Your task to perform on an android device: Open calendar and show me the fourth week of next month Image 0: 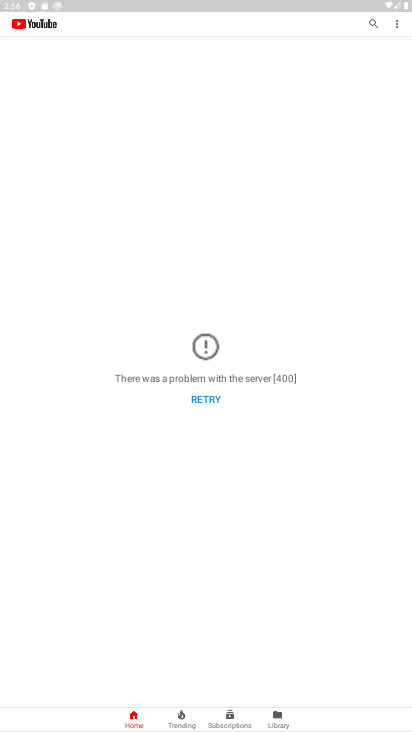
Step 0: press back button
Your task to perform on an android device: Open calendar and show me the fourth week of next month Image 1: 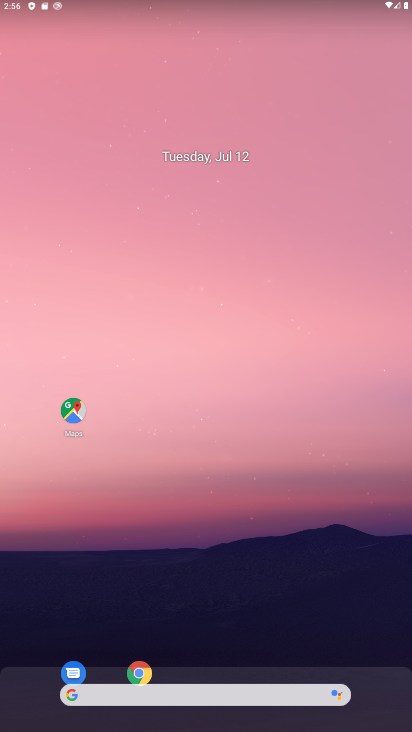
Step 1: drag from (192, 478) to (250, 39)
Your task to perform on an android device: Open calendar and show me the fourth week of next month Image 2: 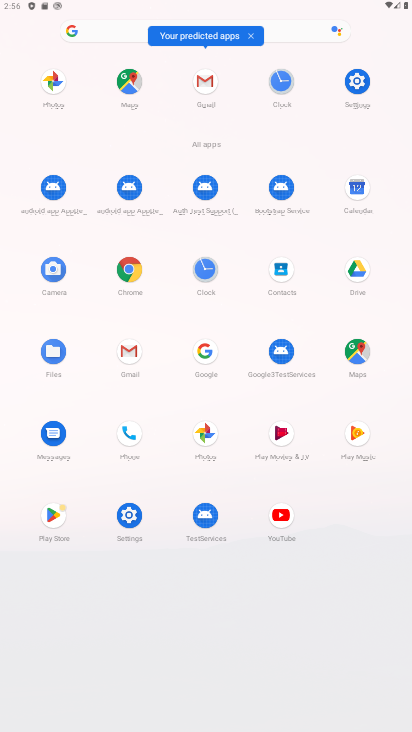
Step 2: click (358, 85)
Your task to perform on an android device: Open calendar and show me the fourth week of next month Image 3: 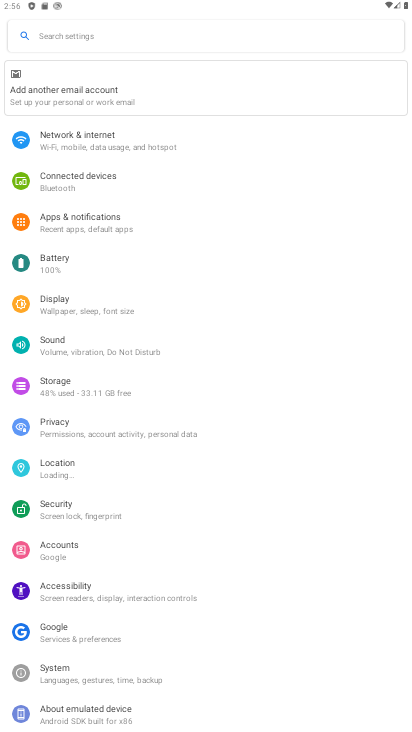
Step 3: click (52, 297)
Your task to perform on an android device: Open calendar and show me the fourth week of next month Image 4: 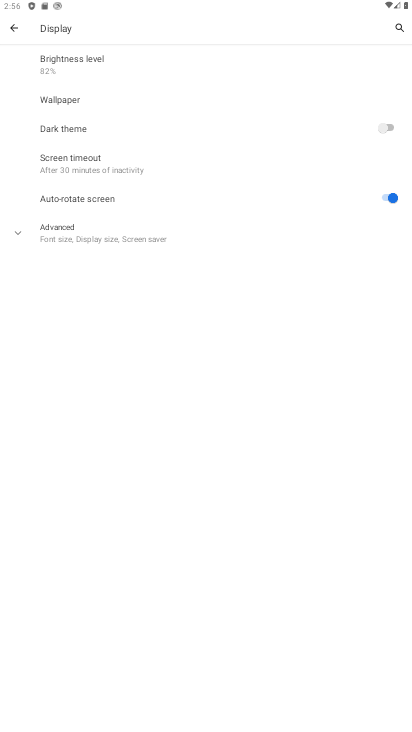
Step 4: click (78, 231)
Your task to perform on an android device: Open calendar and show me the fourth week of next month Image 5: 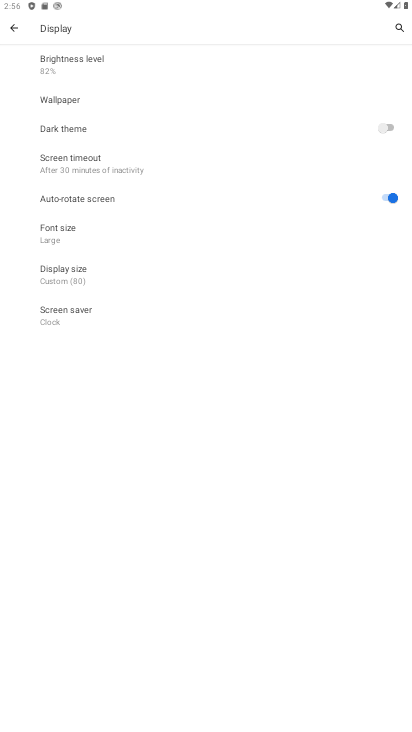
Step 5: click (71, 233)
Your task to perform on an android device: Open calendar and show me the fourth week of next month Image 6: 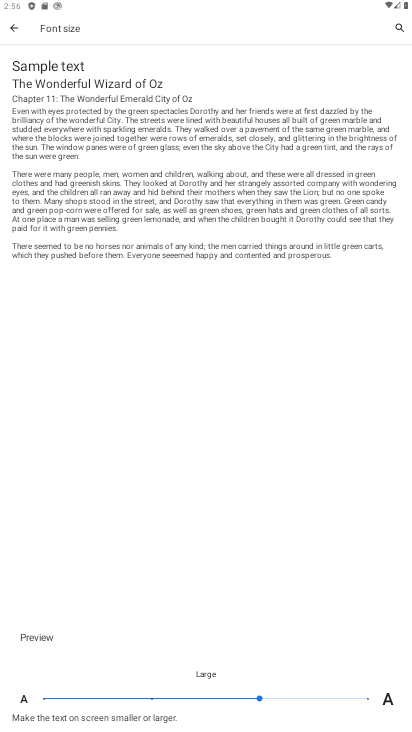
Step 6: click (12, 28)
Your task to perform on an android device: Open calendar and show me the fourth week of next month Image 7: 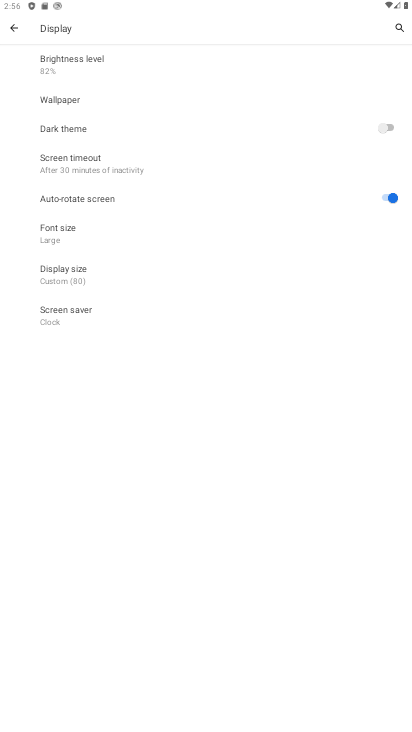
Step 7: click (70, 268)
Your task to perform on an android device: Open calendar and show me the fourth week of next month Image 8: 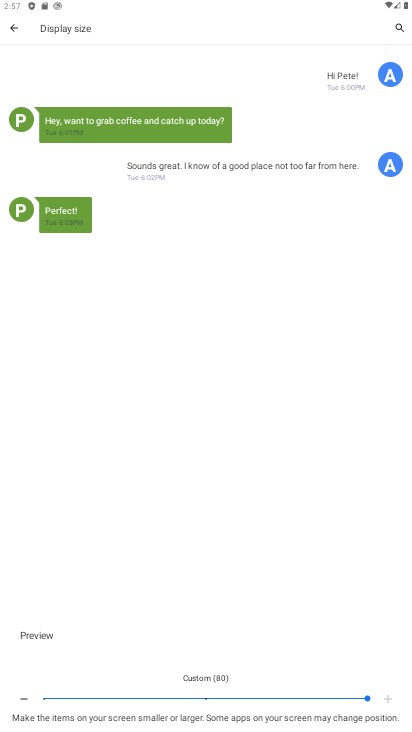
Step 8: click (201, 691)
Your task to perform on an android device: Open calendar and show me the fourth week of next month Image 9: 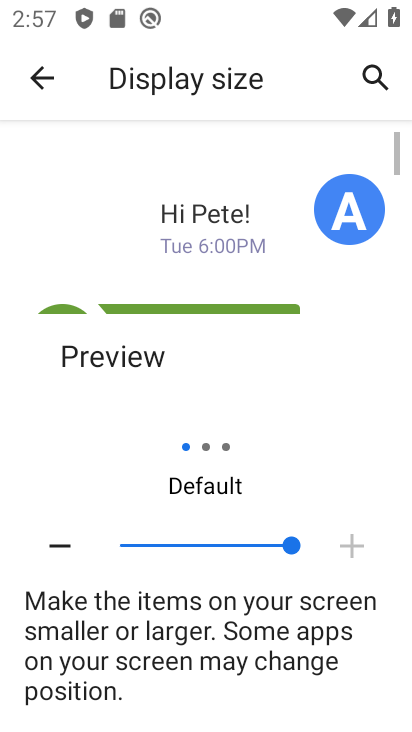
Step 9: click (206, 702)
Your task to perform on an android device: Open calendar and show me the fourth week of next month Image 10: 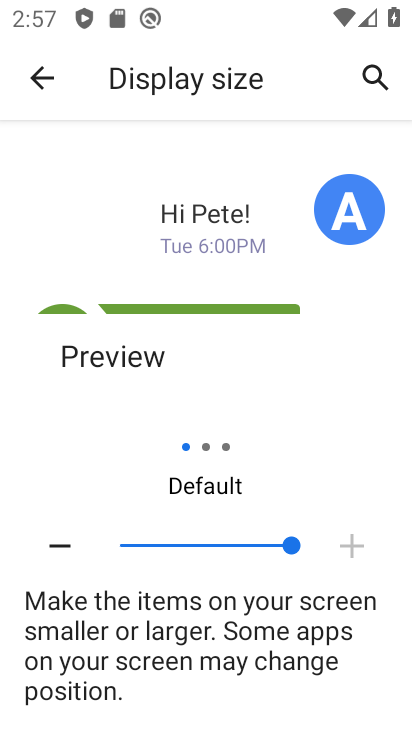
Step 10: click (30, 69)
Your task to perform on an android device: Open calendar and show me the fourth week of next month Image 11: 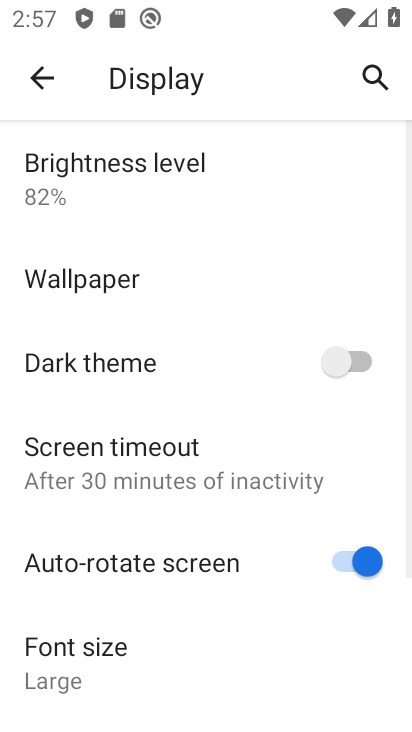
Step 11: click (30, 69)
Your task to perform on an android device: Open calendar and show me the fourth week of next month Image 12: 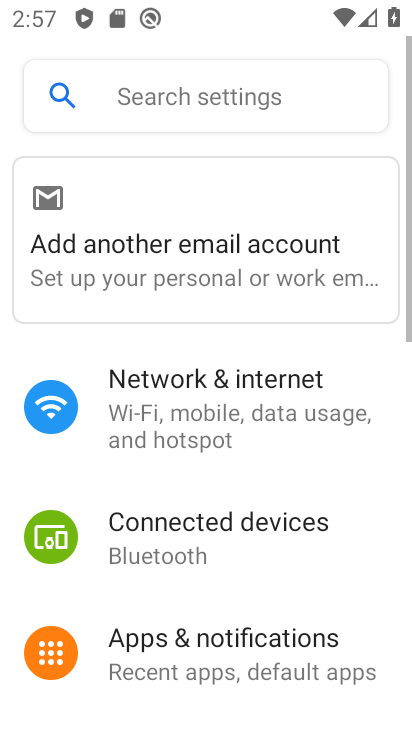
Step 12: press back button
Your task to perform on an android device: Open calendar and show me the fourth week of next month Image 13: 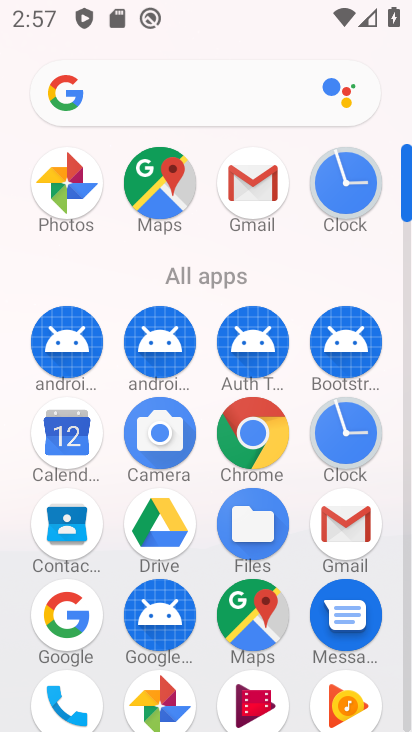
Step 13: click (71, 439)
Your task to perform on an android device: Open calendar and show me the fourth week of next month Image 14: 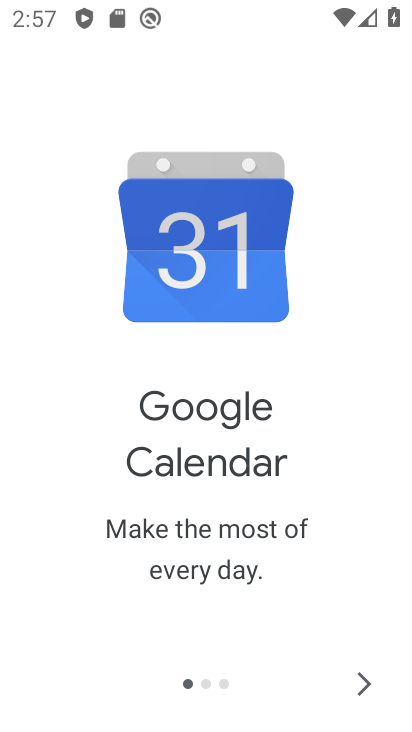
Step 14: click (374, 681)
Your task to perform on an android device: Open calendar and show me the fourth week of next month Image 15: 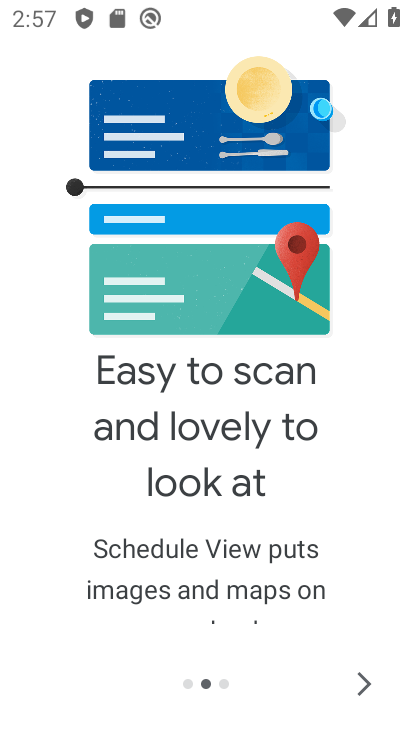
Step 15: click (374, 679)
Your task to perform on an android device: Open calendar and show me the fourth week of next month Image 16: 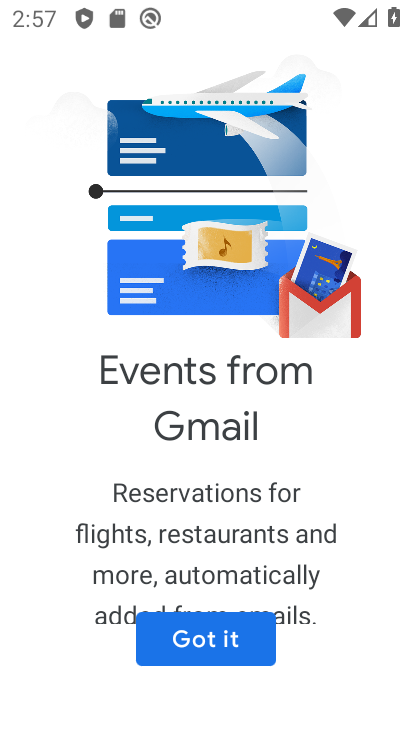
Step 16: click (370, 679)
Your task to perform on an android device: Open calendar and show me the fourth week of next month Image 17: 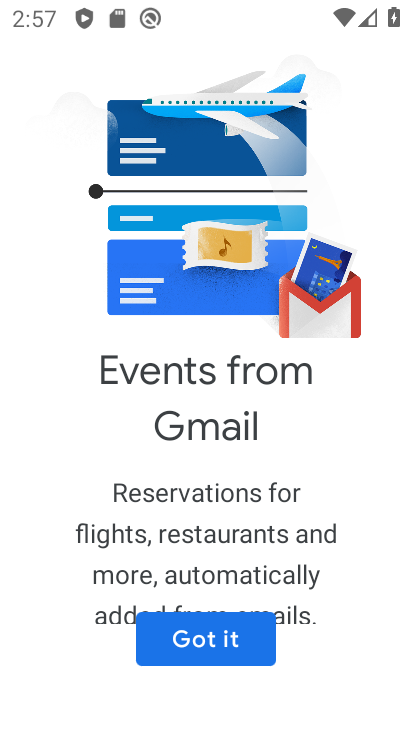
Step 17: click (236, 615)
Your task to perform on an android device: Open calendar and show me the fourth week of next month Image 18: 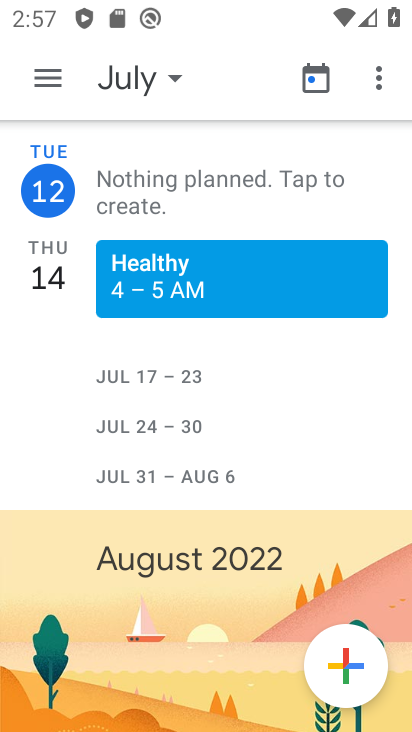
Step 18: click (157, 72)
Your task to perform on an android device: Open calendar and show me the fourth week of next month Image 19: 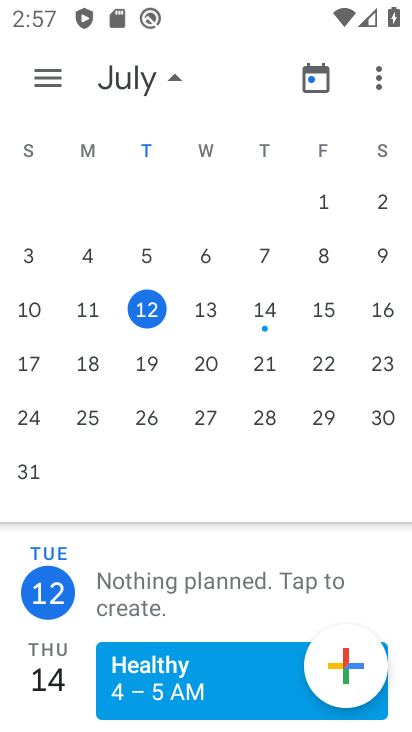
Step 19: drag from (363, 287) to (83, 300)
Your task to perform on an android device: Open calendar and show me the fourth week of next month Image 20: 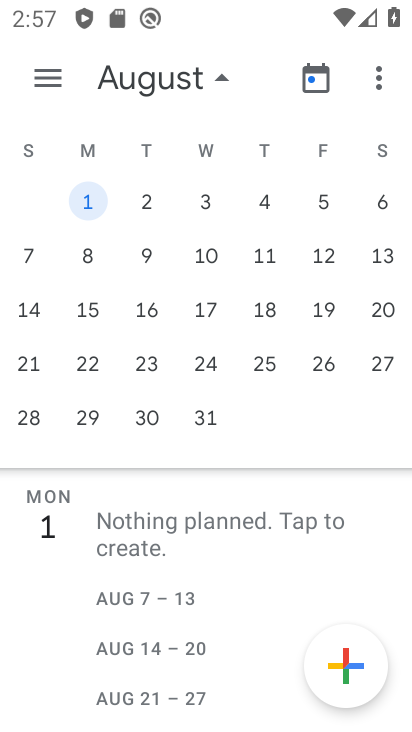
Step 20: click (90, 363)
Your task to perform on an android device: Open calendar and show me the fourth week of next month Image 21: 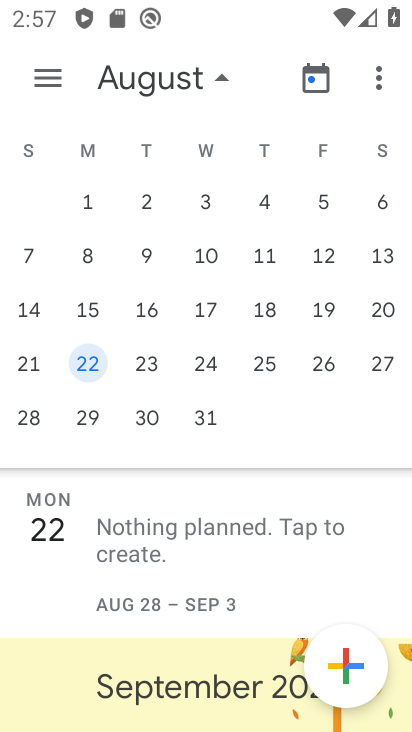
Step 21: task complete